Your task to perform on an android device: turn off improve location accuracy Image 0: 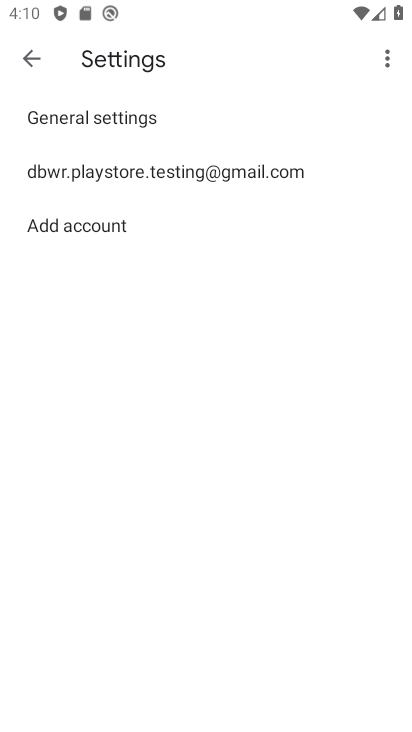
Step 0: click (124, 170)
Your task to perform on an android device: turn off improve location accuracy Image 1: 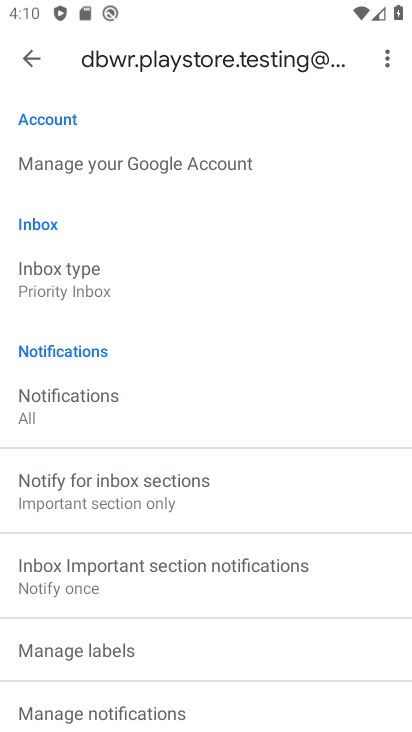
Step 1: drag from (212, 645) to (303, 240)
Your task to perform on an android device: turn off improve location accuracy Image 2: 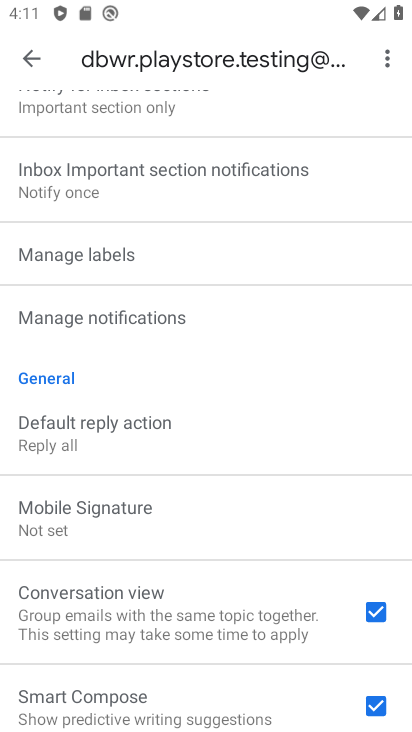
Step 2: press home button
Your task to perform on an android device: turn off improve location accuracy Image 3: 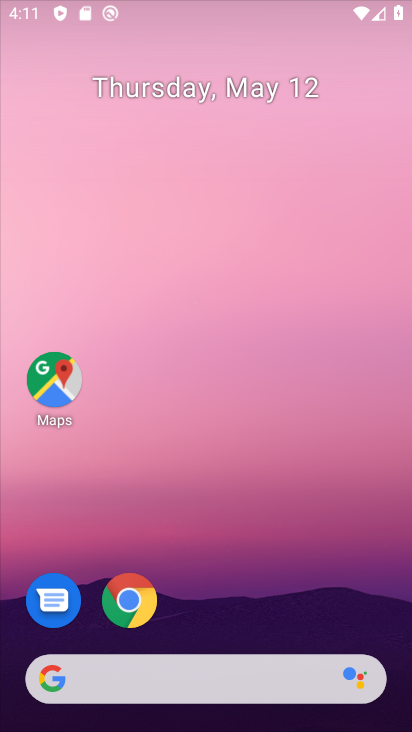
Step 3: drag from (165, 622) to (241, 167)
Your task to perform on an android device: turn off improve location accuracy Image 4: 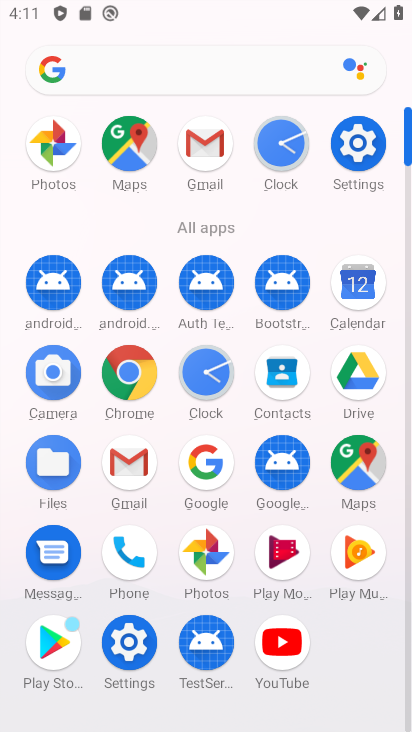
Step 4: click (355, 133)
Your task to perform on an android device: turn off improve location accuracy Image 5: 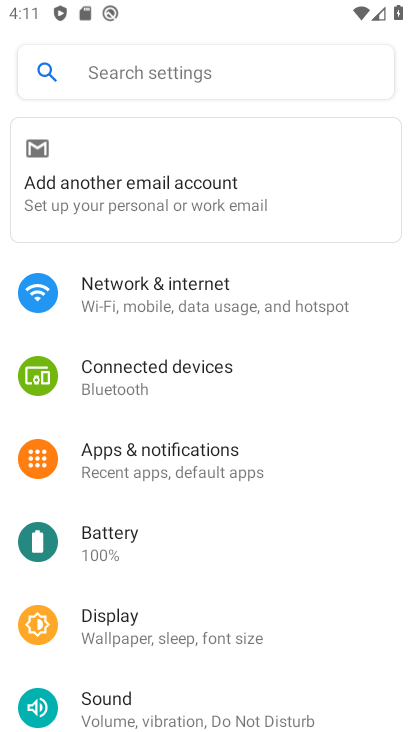
Step 5: drag from (245, 598) to (357, 62)
Your task to perform on an android device: turn off improve location accuracy Image 6: 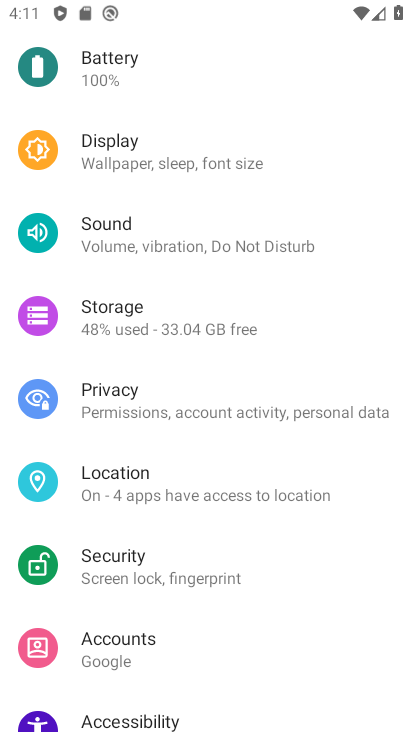
Step 6: drag from (238, 658) to (290, 129)
Your task to perform on an android device: turn off improve location accuracy Image 7: 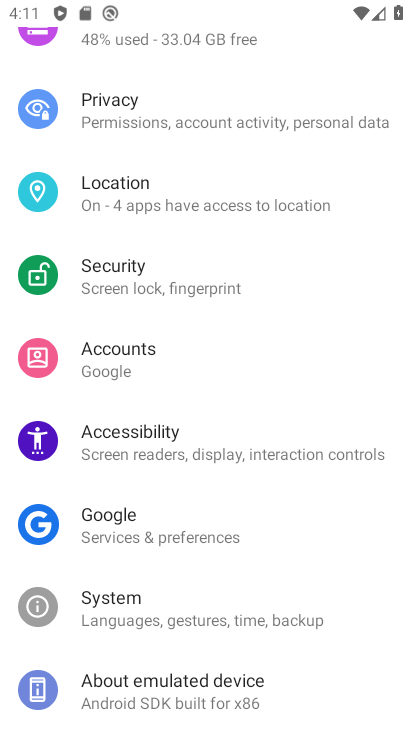
Step 7: click (174, 204)
Your task to perform on an android device: turn off improve location accuracy Image 8: 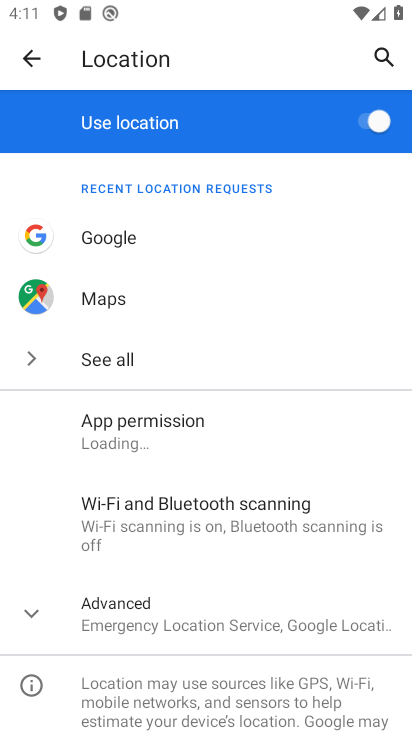
Step 8: click (141, 628)
Your task to perform on an android device: turn off improve location accuracy Image 9: 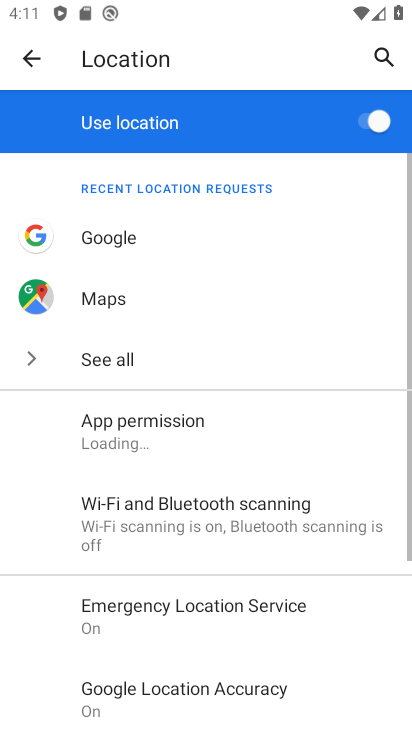
Step 9: drag from (199, 632) to (288, 168)
Your task to perform on an android device: turn off improve location accuracy Image 10: 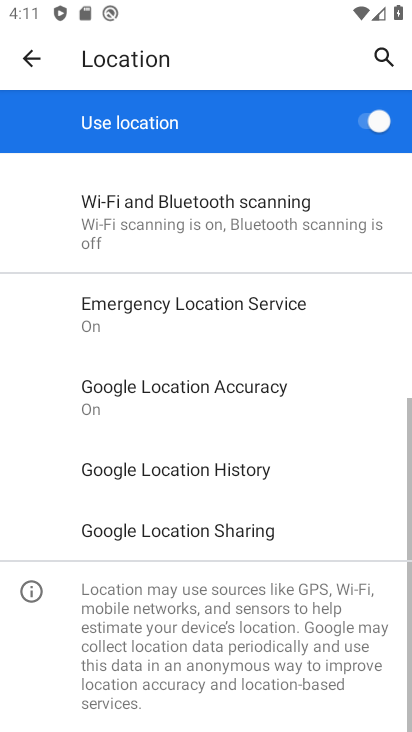
Step 10: click (218, 401)
Your task to perform on an android device: turn off improve location accuracy Image 11: 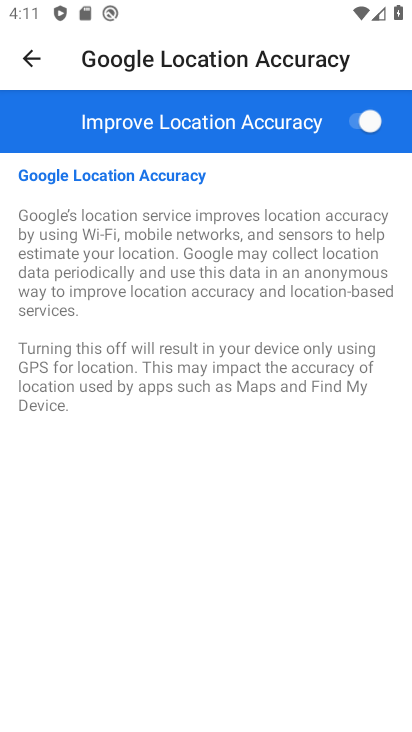
Step 11: click (372, 126)
Your task to perform on an android device: turn off improve location accuracy Image 12: 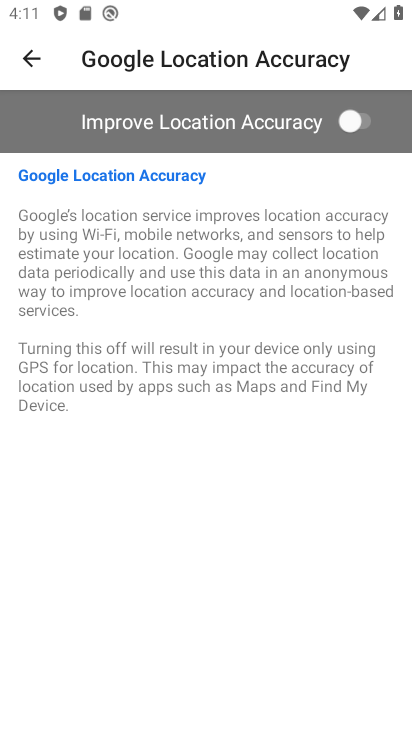
Step 12: task complete